Your task to perform on an android device: Check out the best rated 4k TV on Best Buy. Image 0: 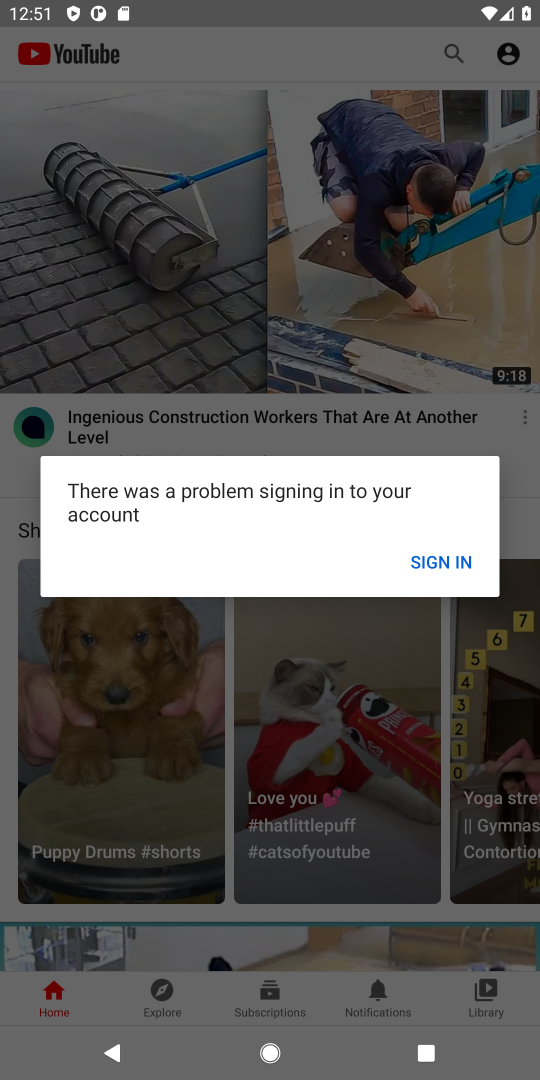
Step 0: press home button
Your task to perform on an android device: Check out the best rated 4k TV on Best Buy. Image 1: 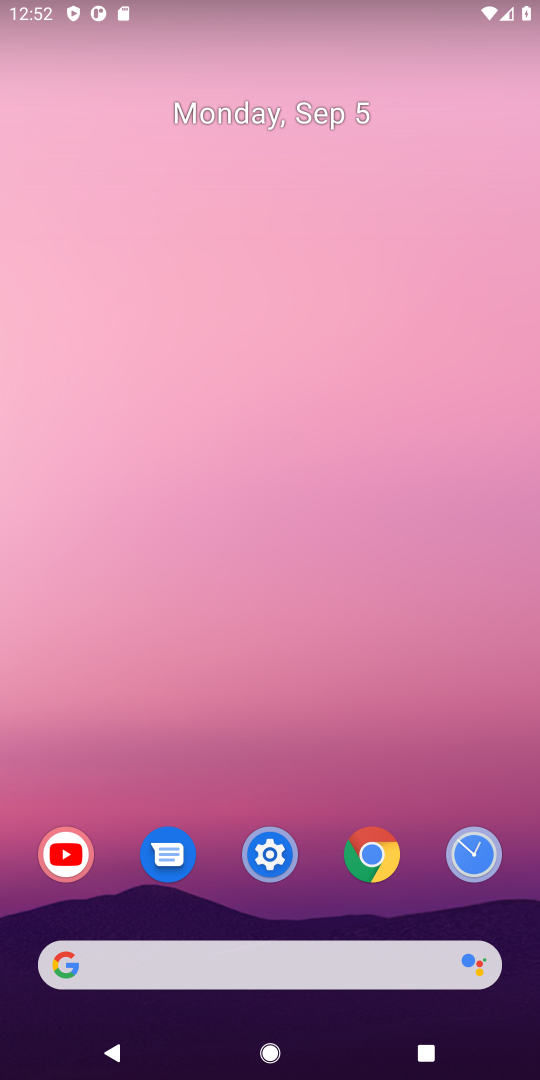
Step 1: click (161, 979)
Your task to perform on an android device: Check out the best rated 4k TV on Best Buy. Image 2: 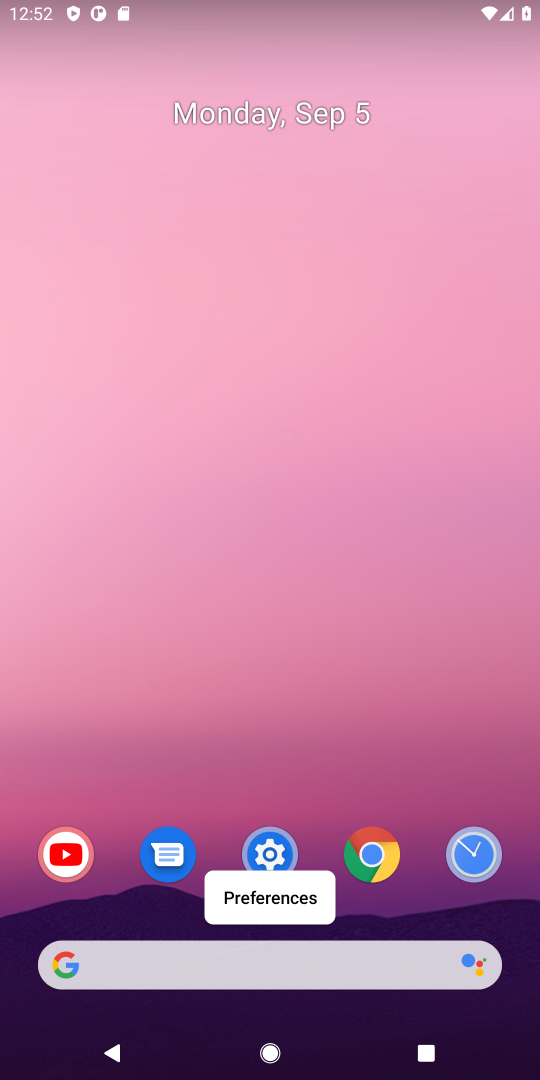
Step 2: click (171, 976)
Your task to perform on an android device: Check out the best rated 4k TV on Best Buy. Image 3: 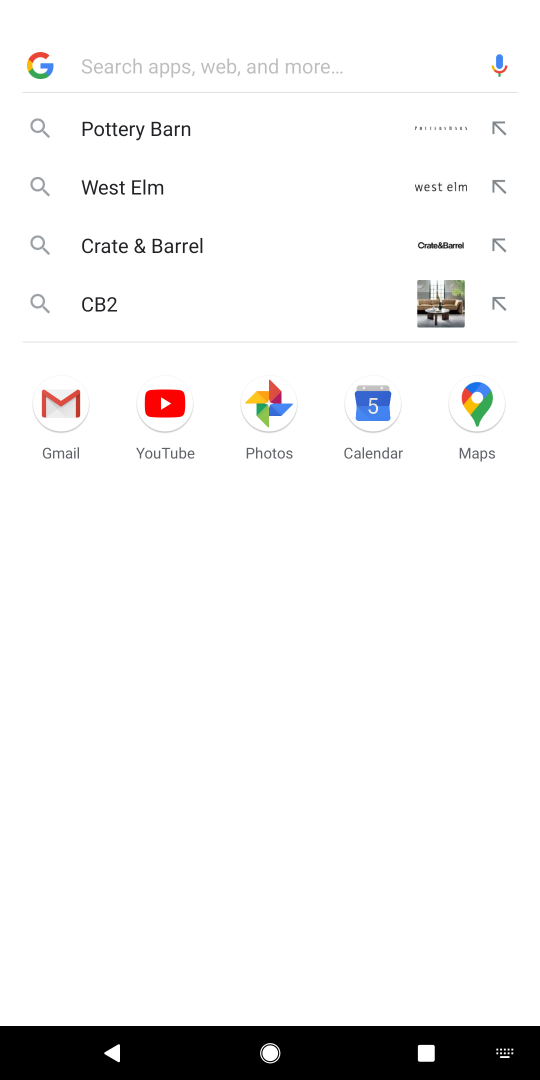
Step 3: type "Best Buy"
Your task to perform on an android device: Check out the best rated 4k TV on Best Buy. Image 4: 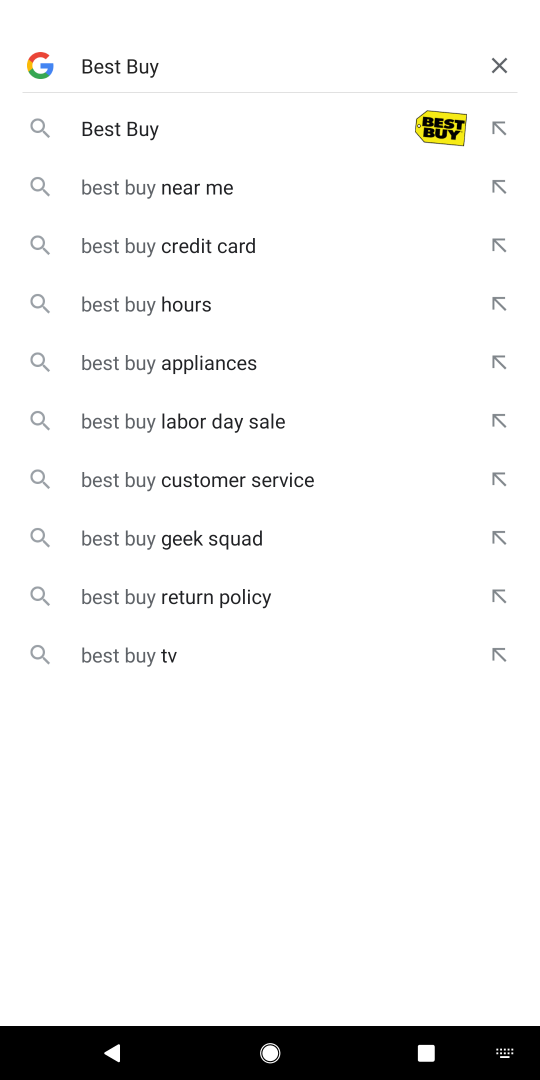
Step 4: type ""
Your task to perform on an android device: Check out the best rated 4k TV on Best Buy. Image 5: 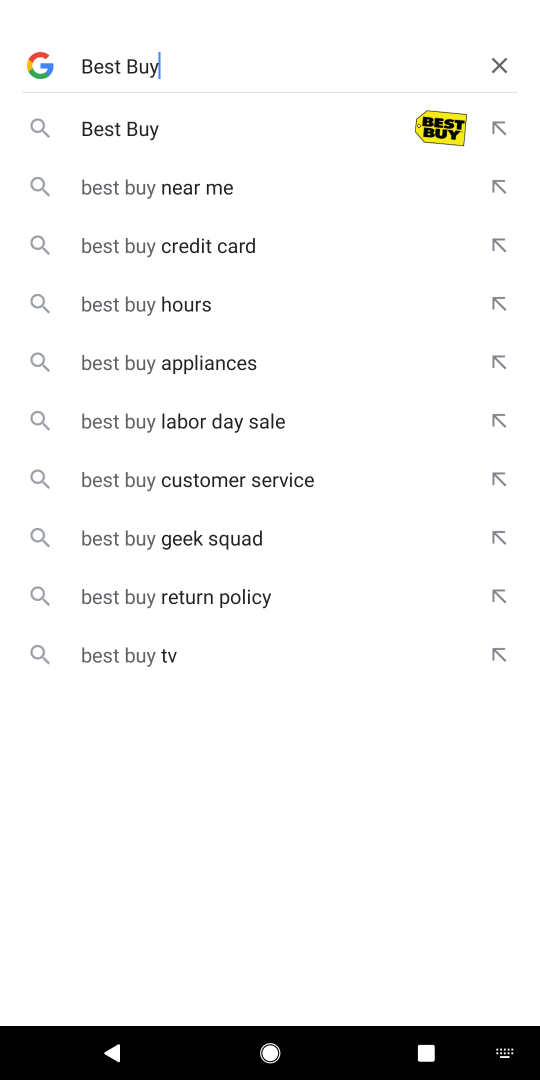
Step 5: click (134, 134)
Your task to perform on an android device: Check out the best rated 4k TV on Best Buy. Image 6: 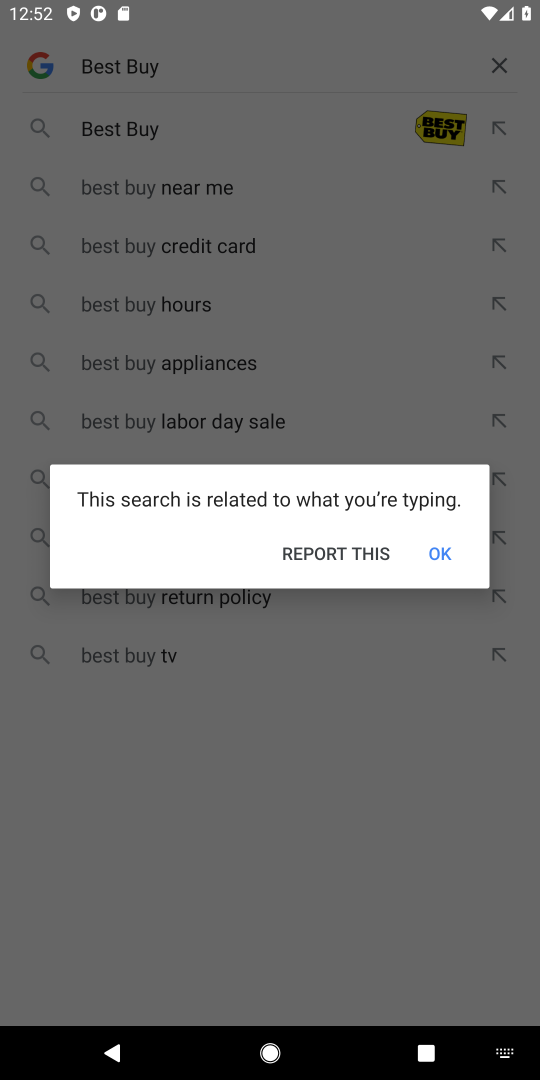
Step 6: click (452, 554)
Your task to perform on an android device: Check out the best rated 4k TV on Best Buy. Image 7: 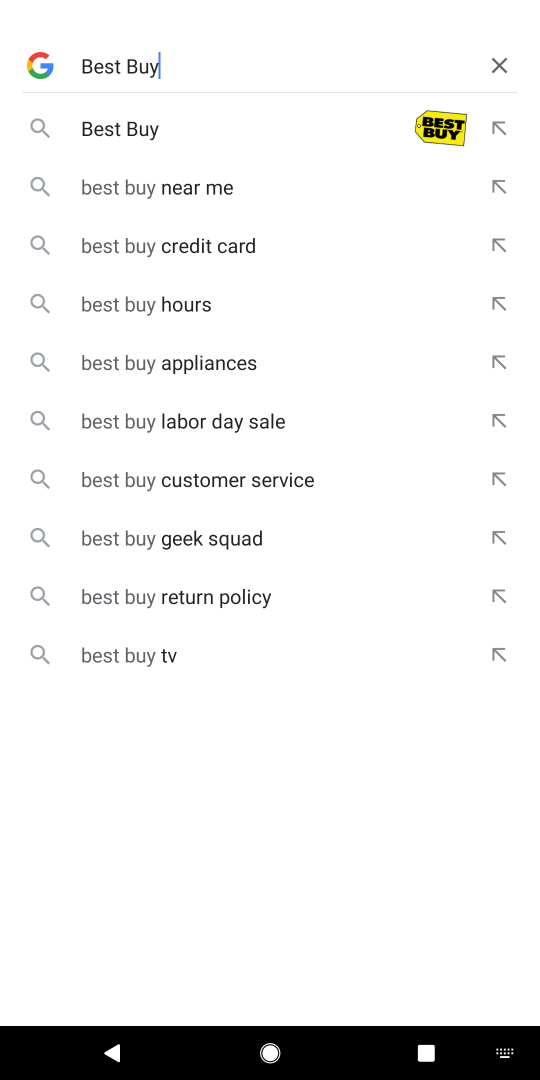
Step 7: click (158, 141)
Your task to perform on an android device: Check out the best rated 4k TV on Best Buy. Image 8: 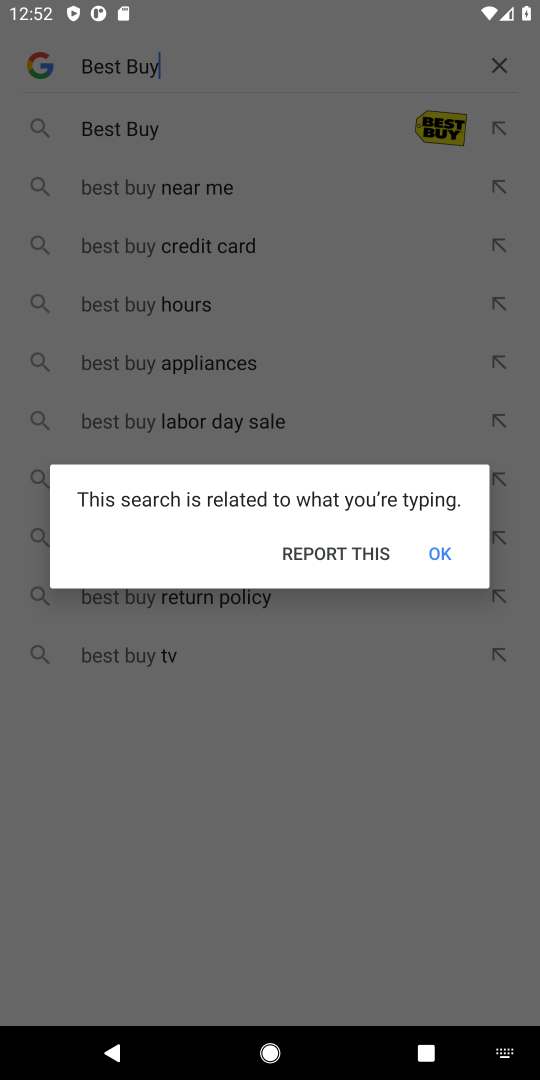
Step 8: click (429, 555)
Your task to perform on an android device: Check out the best rated 4k TV on Best Buy. Image 9: 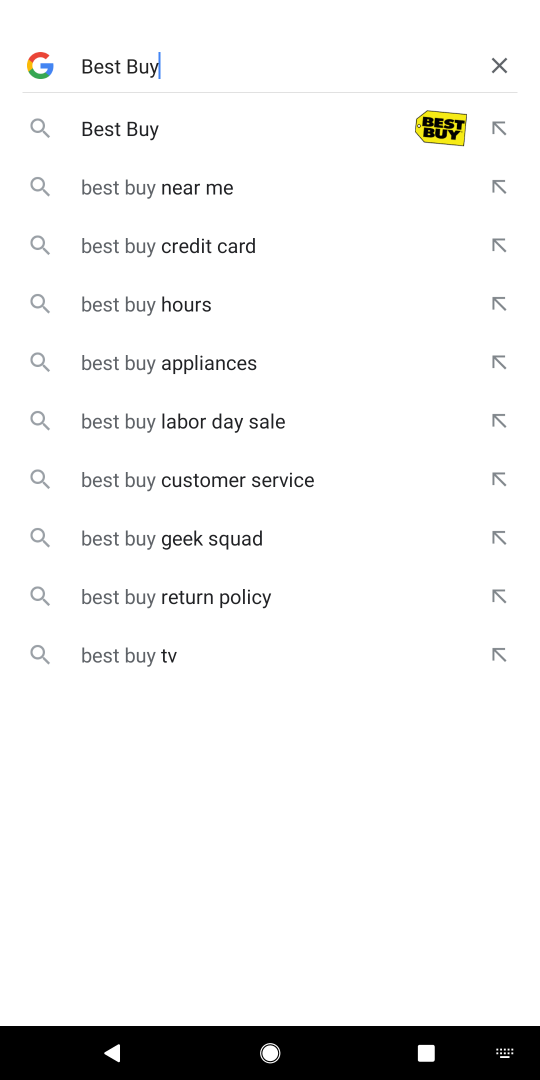
Step 9: click (173, 127)
Your task to perform on an android device: Check out the best rated 4k TV on Best Buy. Image 10: 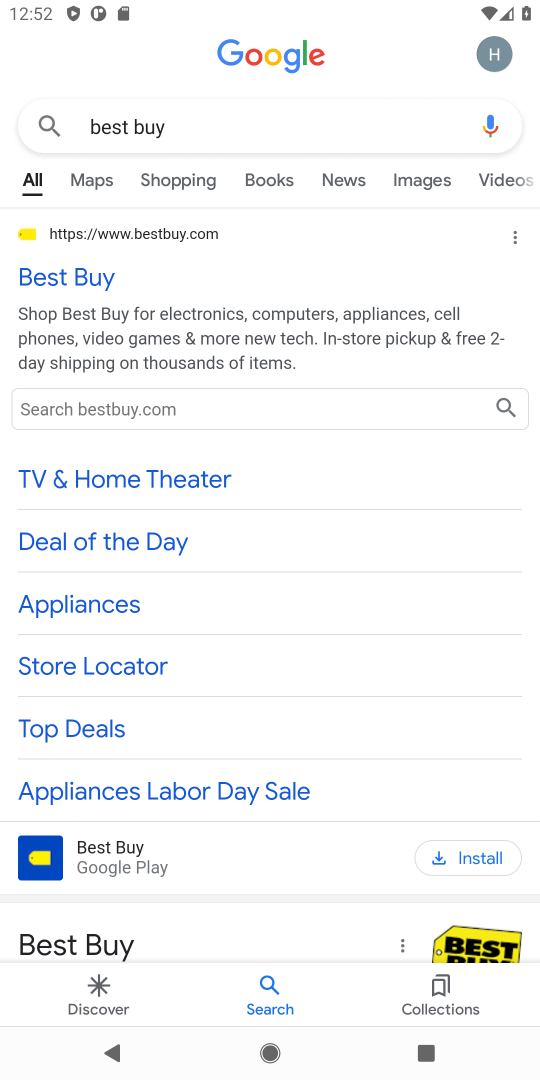
Step 10: click (59, 301)
Your task to perform on an android device: Check out the best rated 4k TV on Best Buy. Image 11: 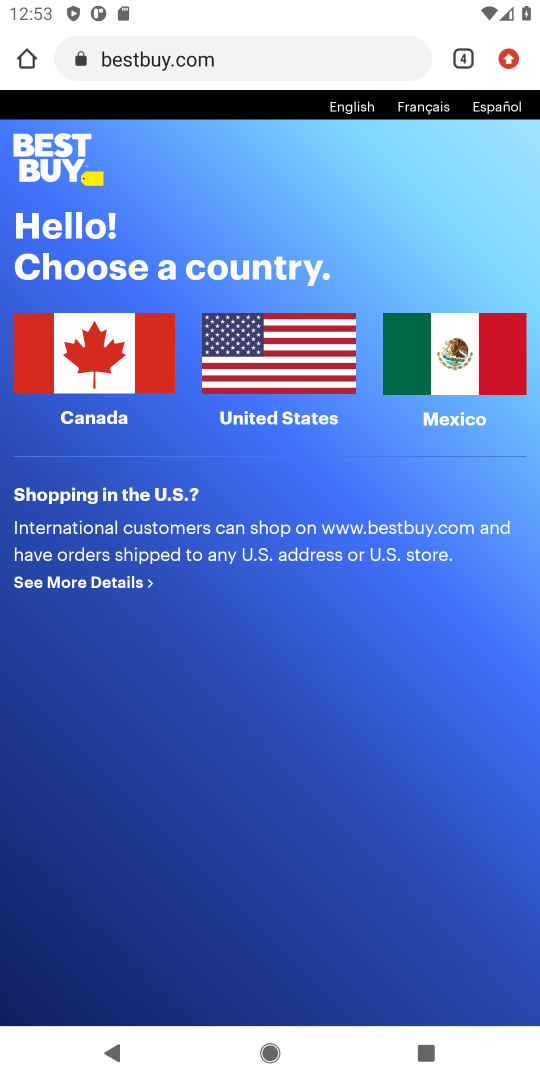
Step 11: click (269, 366)
Your task to perform on an android device: Check out the best rated 4k TV on Best Buy. Image 12: 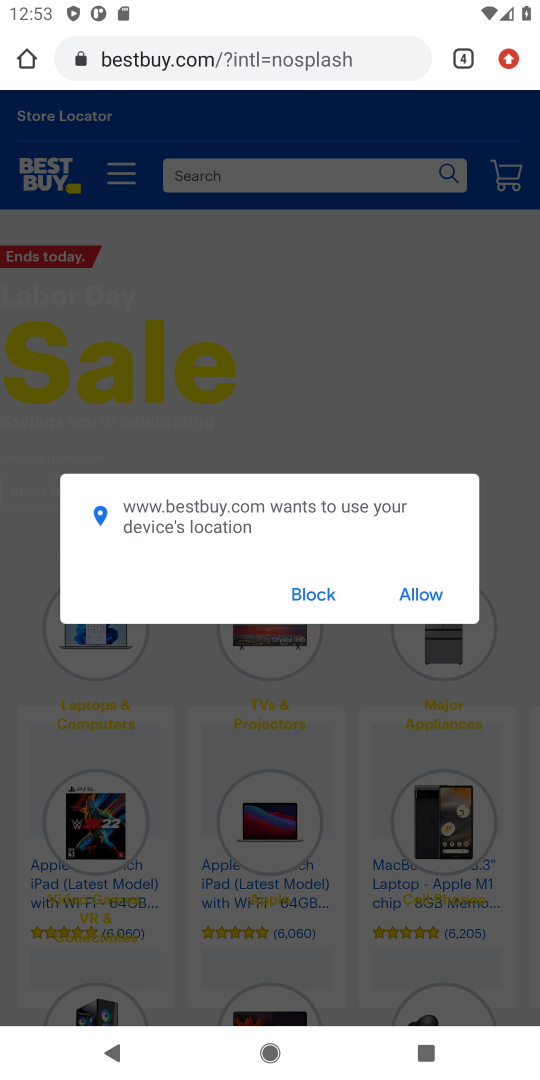
Step 12: click (410, 587)
Your task to perform on an android device: Check out the best rated 4k TV on Best Buy. Image 13: 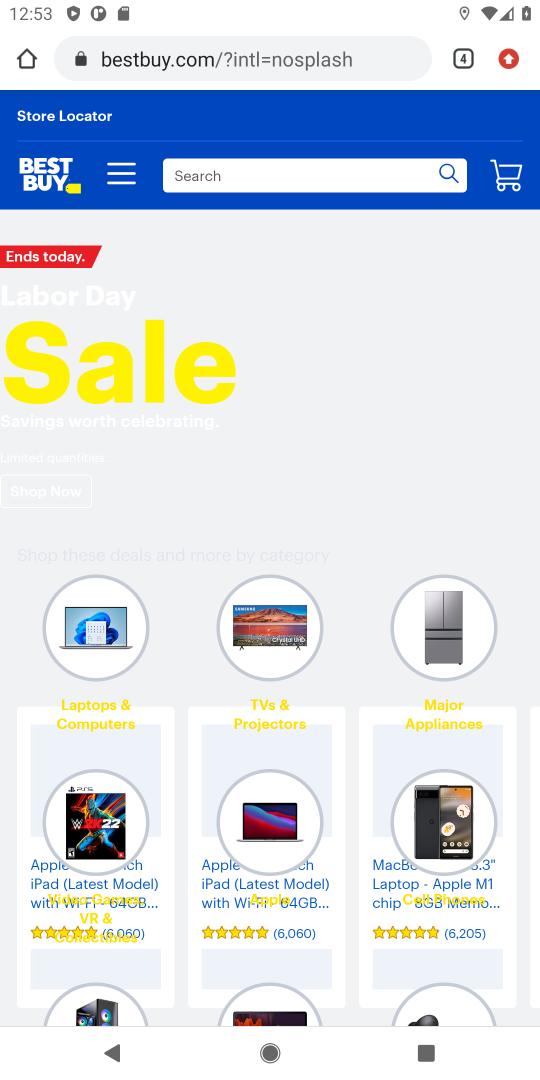
Step 13: click (220, 193)
Your task to perform on an android device: Check out the best rated 4k TV on Best Buy. Image 14: 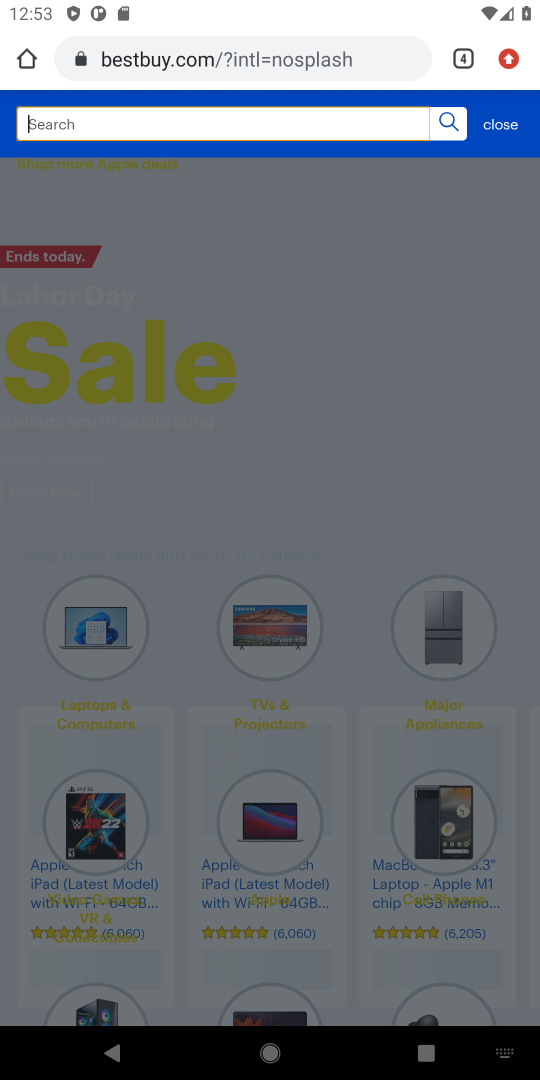
Step 14: type "4k TV "
Your task to perform on an android device: Check out the best rated 4k TV on Best Buy. Image 15: 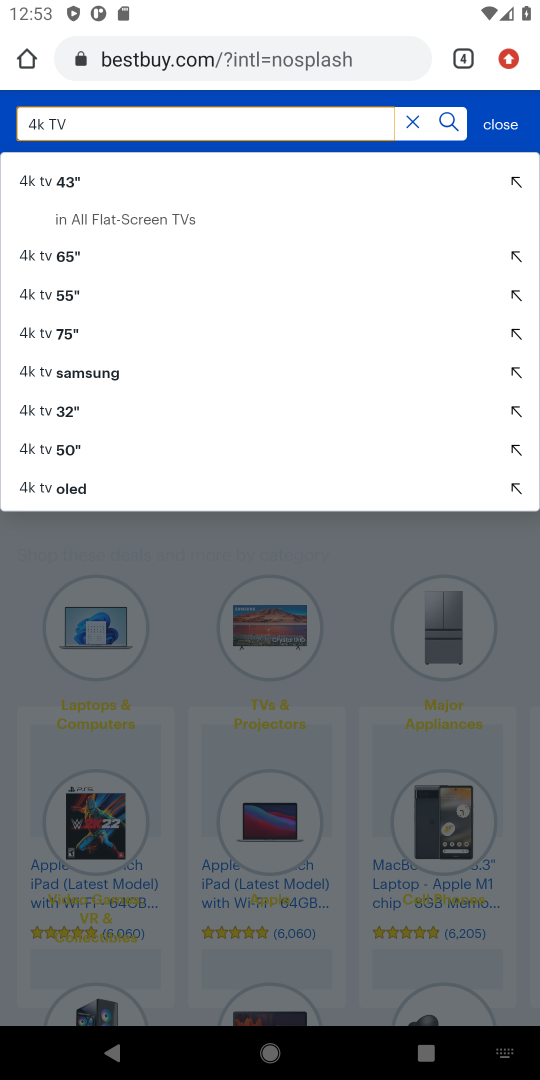
Step 15: click (454, 112)
Your task to perform on an android device: Check out the best rated 4k TV on Best Buy. Image 16: 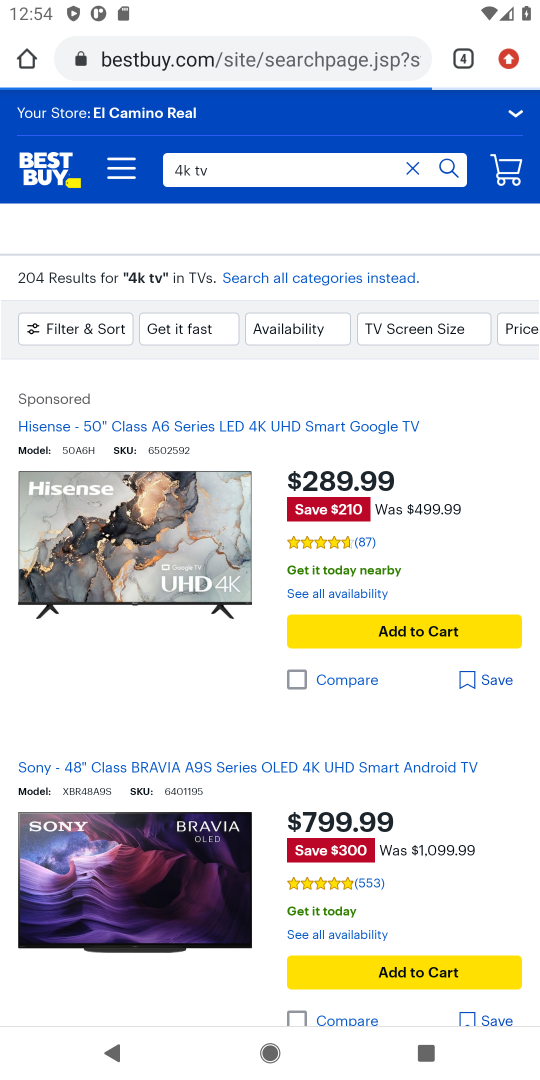
Step 16: task complete